Your task to perform on an android device: turn on wifi Image 0: 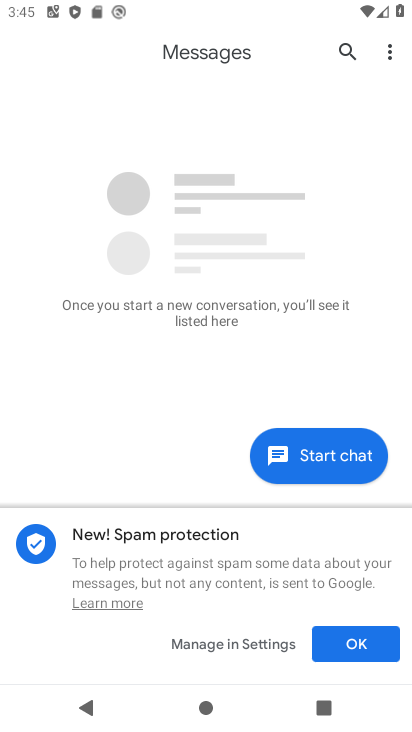
Step 0: press back button
Your task to perform on an android device: turn on wifi Image 1: 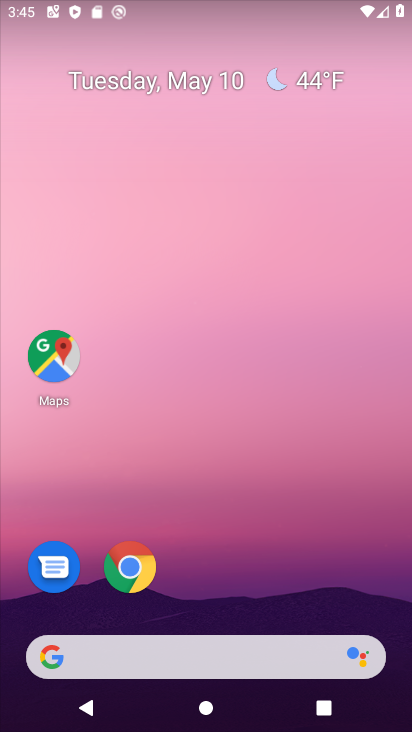
Step 1: drag from (271, 556) to (258, 76)
Your task to perform on an android device: turn on wifi Image 2: 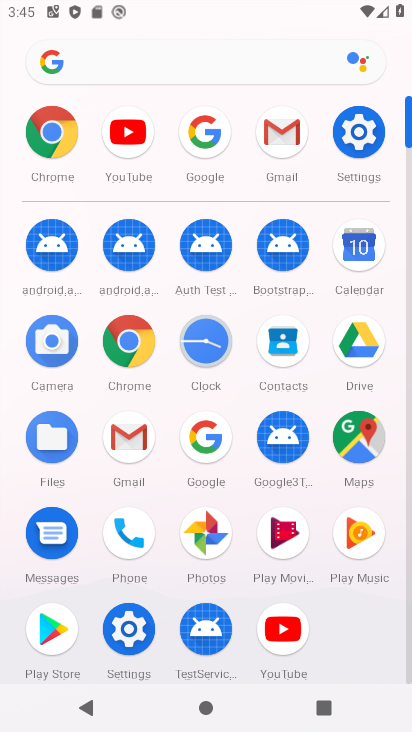
Step 2: click (358, 130)
Your task to perform on an android device: turn on wifi Image 3: 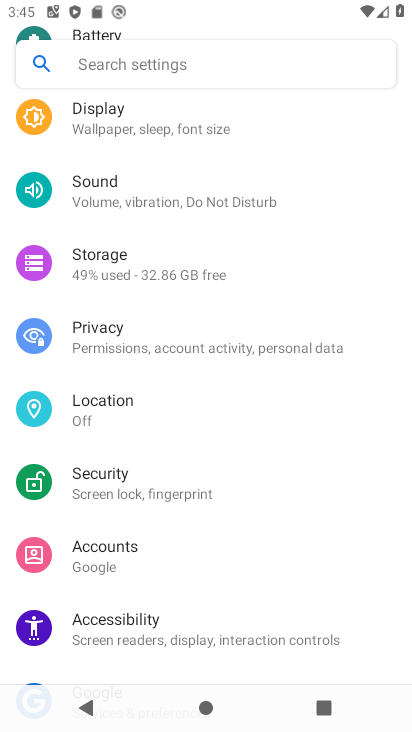
Step 3: drag from (163, 146) to (172, 292)
Your task to perform on an android device: turn on wifi Image 4: 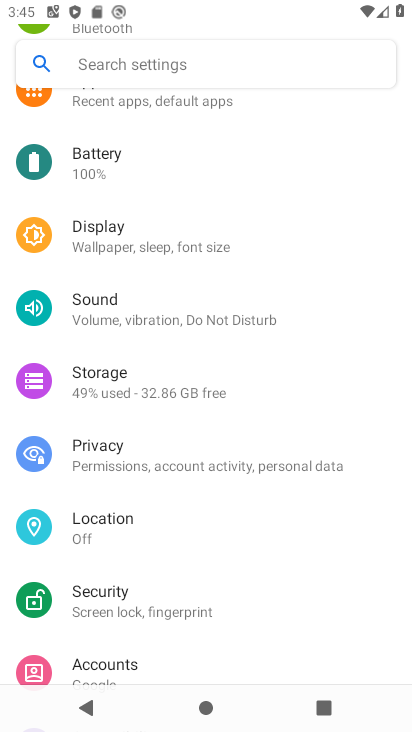
Step 4: drag from (193, 181) to (177, 449)
Your task to perform on an android device: turn on wifi Image 5: 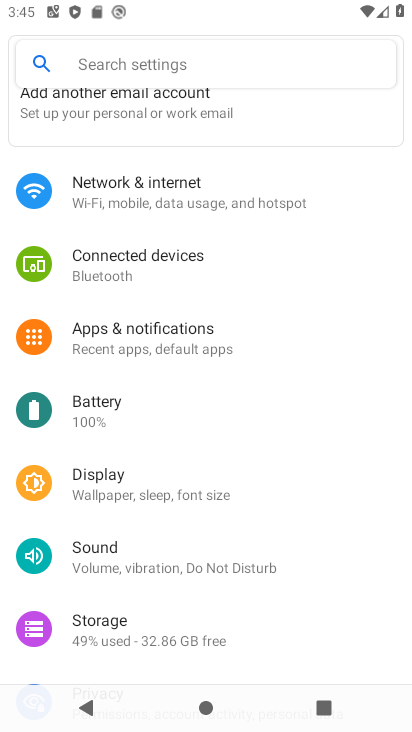
Step 5: click (156, 181)
Your task to perform on an android device: turn on wifi Image 6: 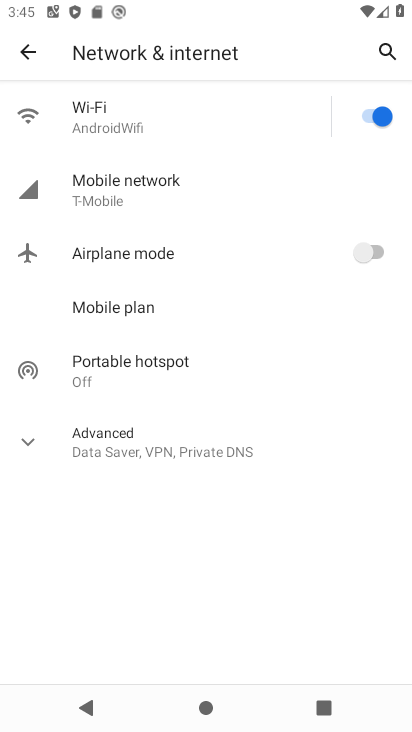
Step 6: task complete